Your task to perform on an android device: toggle pop-ups in chrome Image 0: 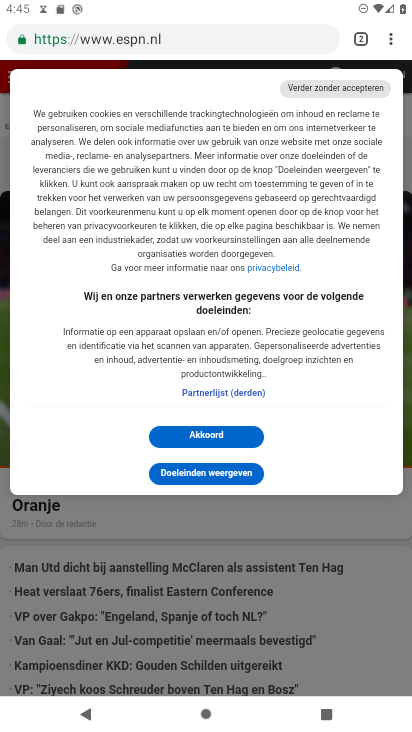
Step 0: press home button
Your task to perform on an android device: toggle pop-ups in chrome Image 1: 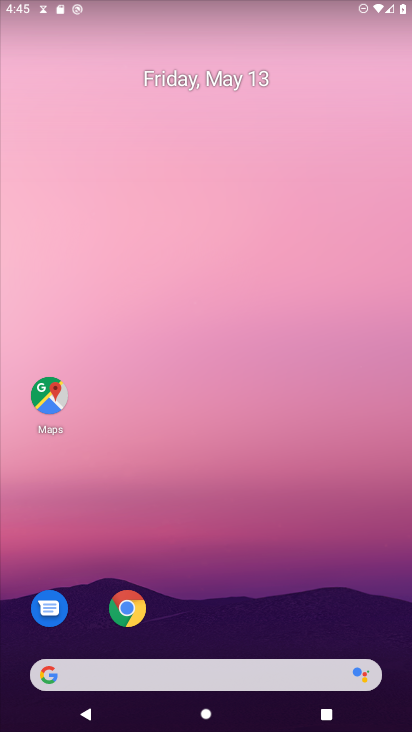
Step 1: drag from (226, 681) to (319, 41)
Your task to perform on an android device: toggle pop-ups in chrome Image 2: 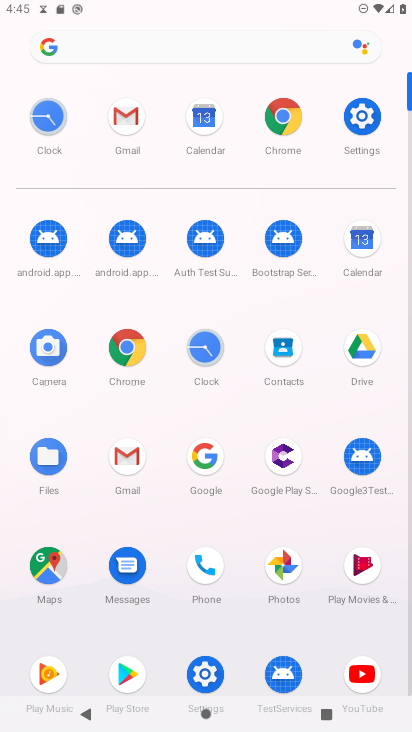
Step 2: click (117, 340)
Your task to perform on an android device: toggle pop-ups in chrome Image 3: 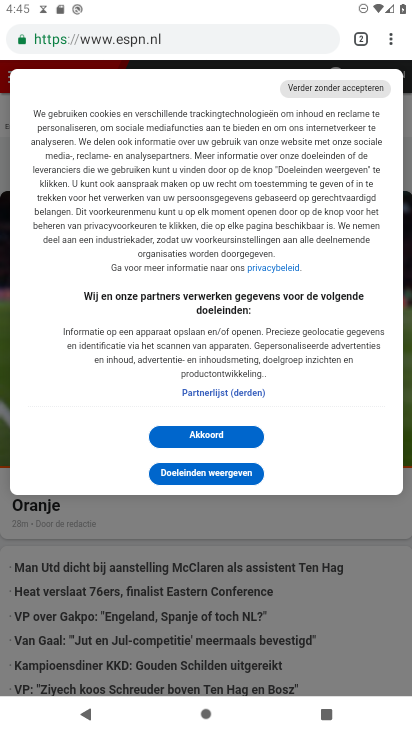
Step 3: click (390, 40)
Your task to perform on an android device: toggle pop-ups in chrome Image 4: 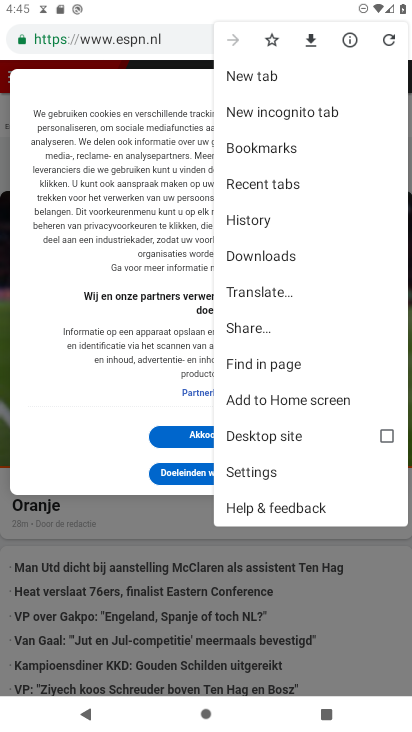
Step 4: click (254, 474)
Your task to perform on an android device: toggle pop-ups in chrome Image 5: 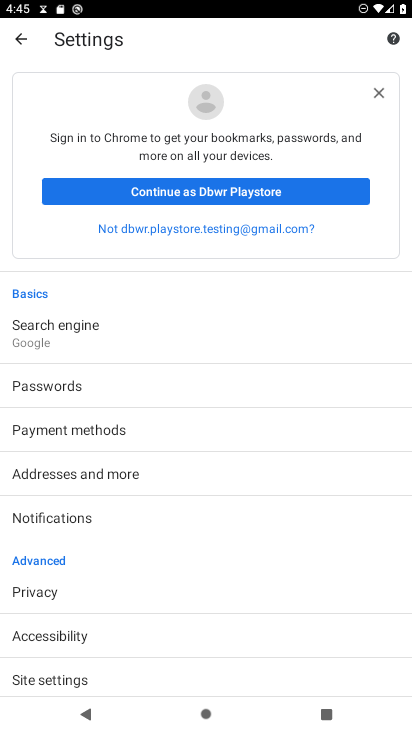
Step 5: drag from (194, 620) to (228, 75)
Your task to perform on an android device: toggle pop-ups in chrome Image 6: 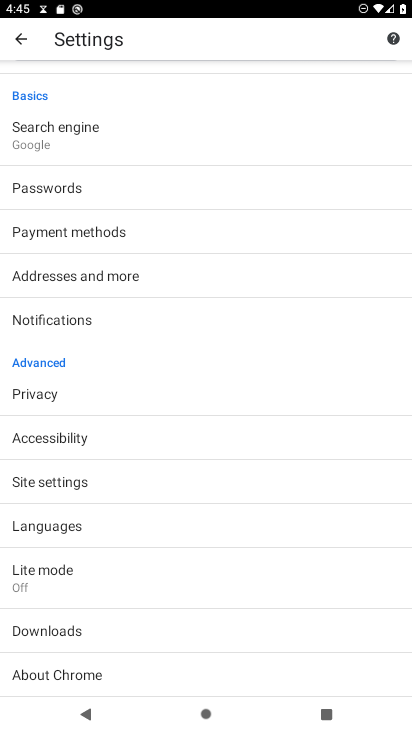
Step 6: click (100, 486)
Your task to perform on an android device: toggle pop-ups in chrome Image 7: 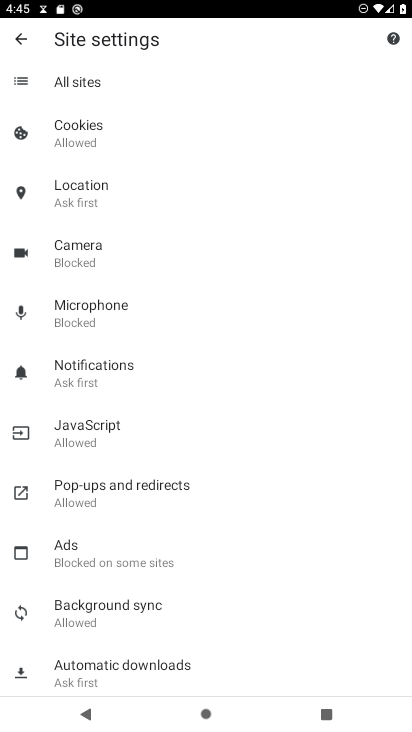
Step 7: click (156, 486)
Your task to perform on an android device: toggle pop-ups in chrome Image 8: 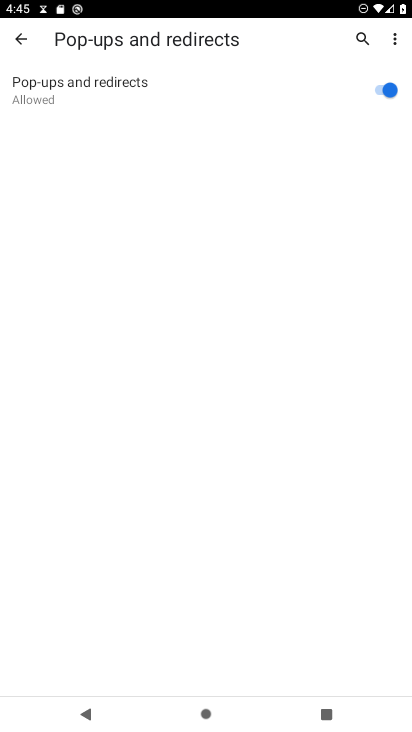
Step 8: click (384, 89)
Your task to perform on an android device: toggle pop-ups in chrome Image 9: 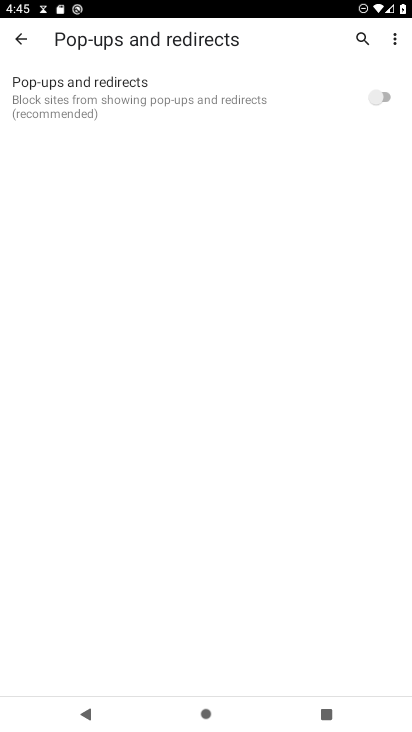
Step 9: task complete